Your task to perform on an android device: Open Yahoo.com Image 0: 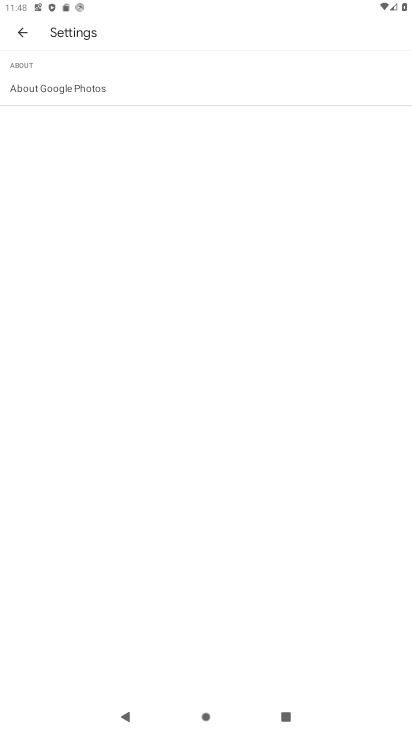
Step 0: press home button
Your task to perform on an android device: Open Yahoo.com Image 1: 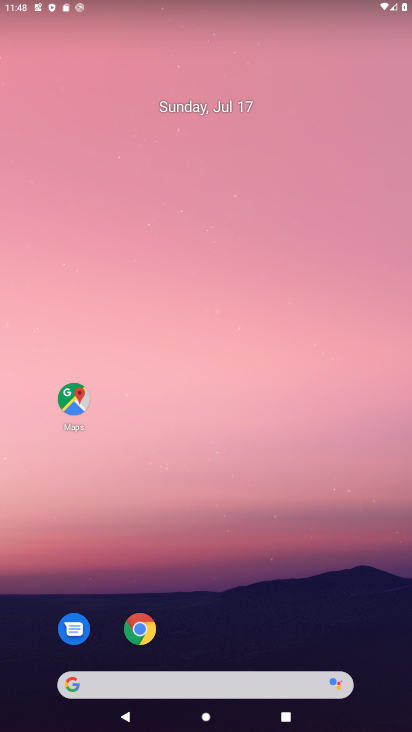
Step 1: click (158, 625)
Your task to perform on an android device: Open Yahoo.com Image 2: 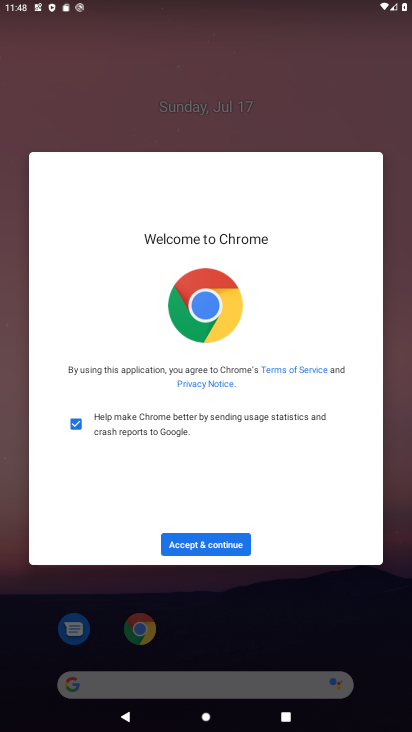
Step 2: click (224, 542)
Your task to perform on an android device: Open Yahoo.com Image 3: 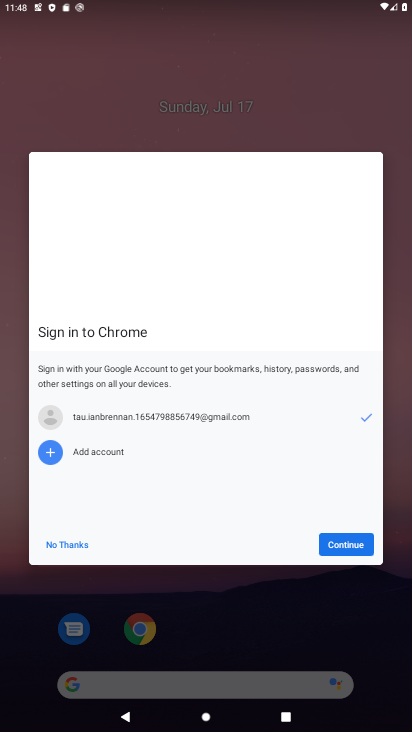
Step 3: click (352, 540)
Your task to perform on an android device: Open Yahoo.com Image 4: 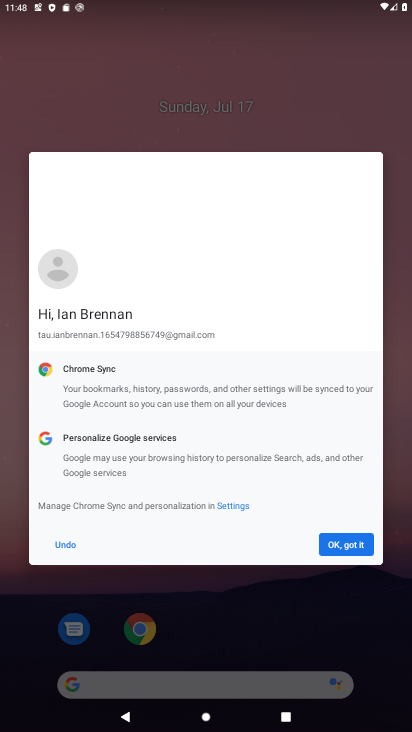
Step 4: click (352, 540)
Your task to perform on an android device: Open Yahoo.com Image 5: 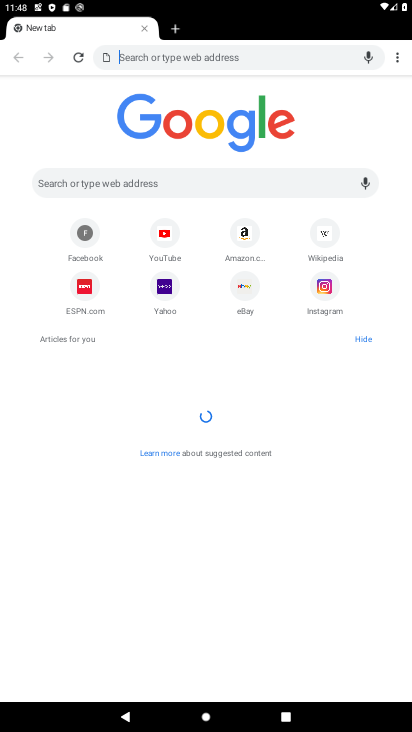
Step 5: click (157, 297)
Your task to perform on an android device: Open Yahoo.com Image 6: 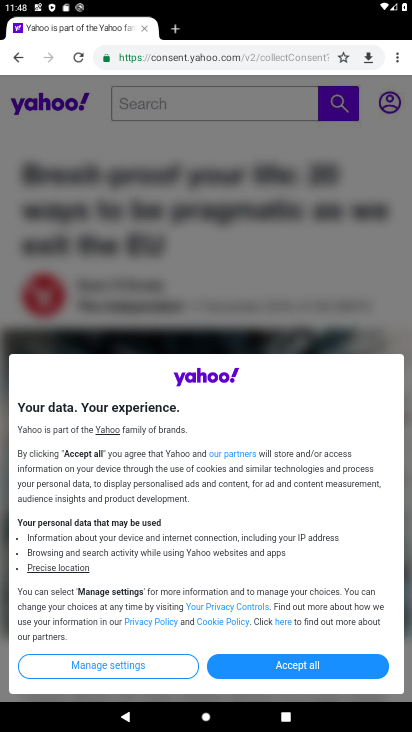
Step 6: click (302, 642)
Your task to perform on an android device: Open Yahoo.com Image 7: 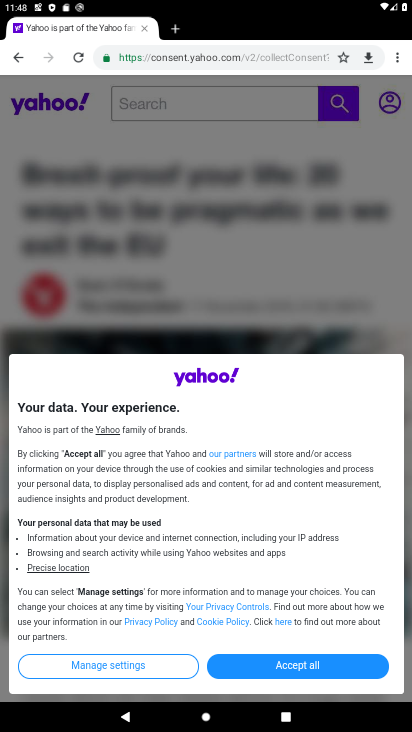
Step 7: click (304, 675)
Your task to perform on an android device: Open Yahoo.com Image 8: 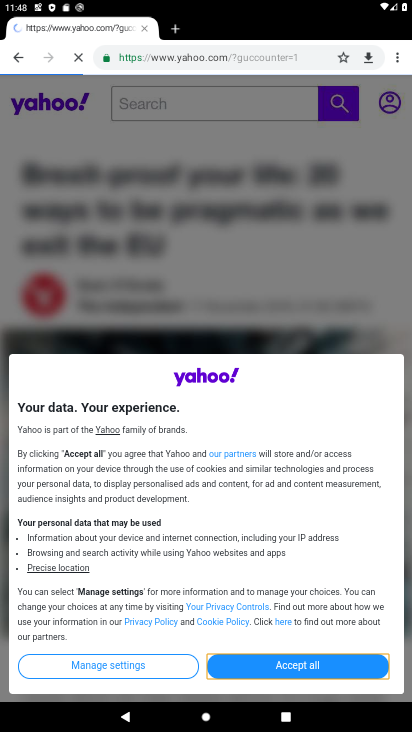
Step 8: click (304, 673)
Your task to perform on an android device: Open Yahoo.com Image 9: 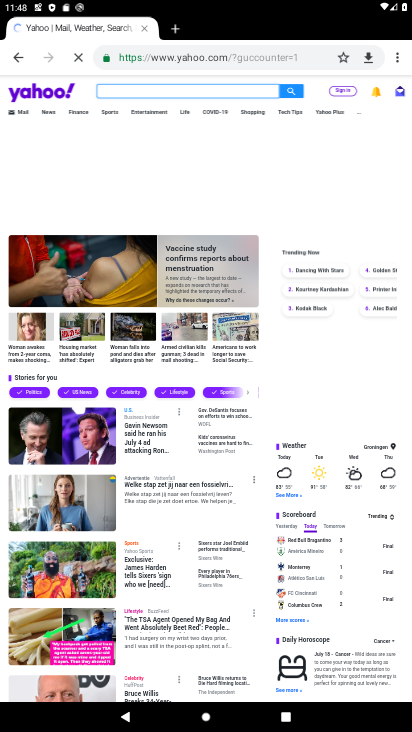
Step 9: task complete